Your task to perform on an android device: Search for Mexican restaurants on Maps Image 0: 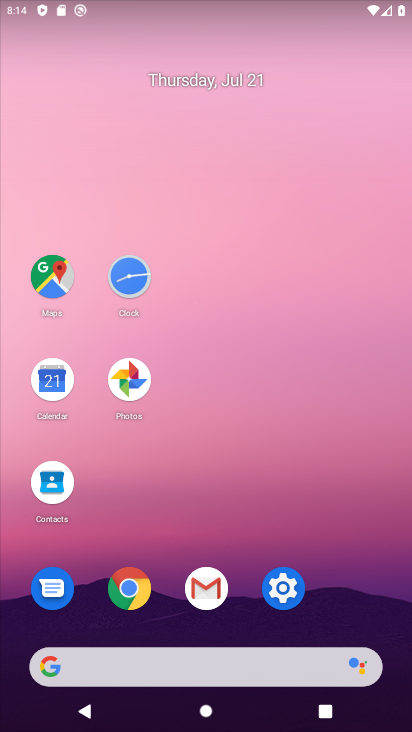
Step 0: click (47, 287)
Your task to perform on an android device: Search for Mexican restaurants on Maps Image 1: 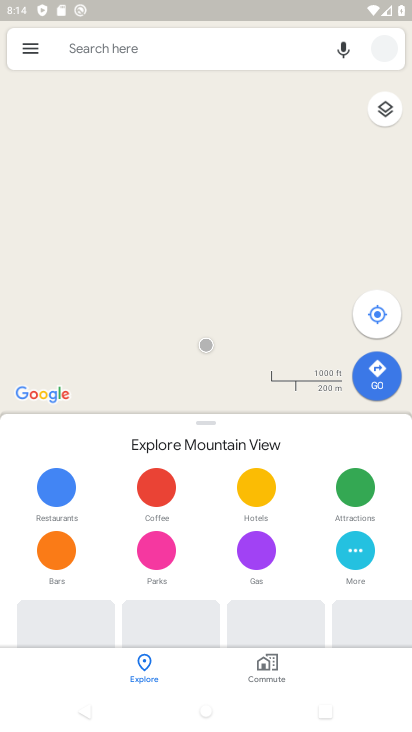
Step 1: click (84, 52)
Your task to perform on an android device: Search for Mexican restaurants on Maps Image 2: 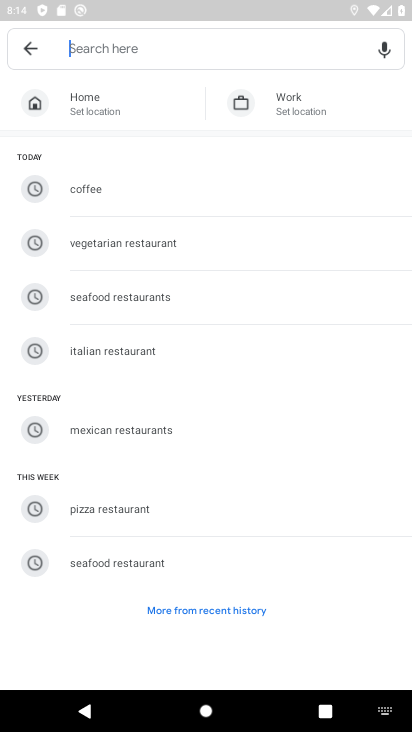
Step 2: click (104, 426)
Your task to perform on an android device: Search for Mexican restaurants on Maps Image 3: 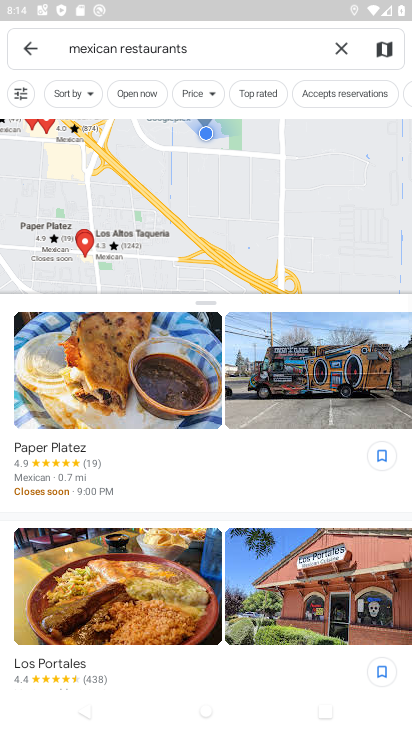
Step 3: task complete